Your task to perform on an android device: turn off priority inbox in the gmail app Image 0: 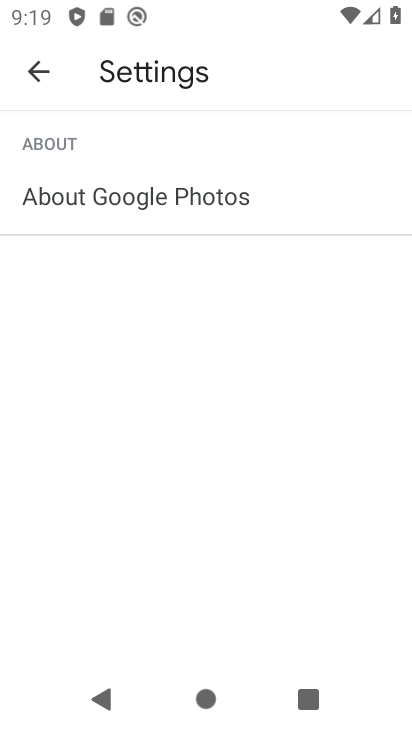
Step 0: press home button
Your task to perform on an android device: turn off priority inbox in the gmail app Image 1: 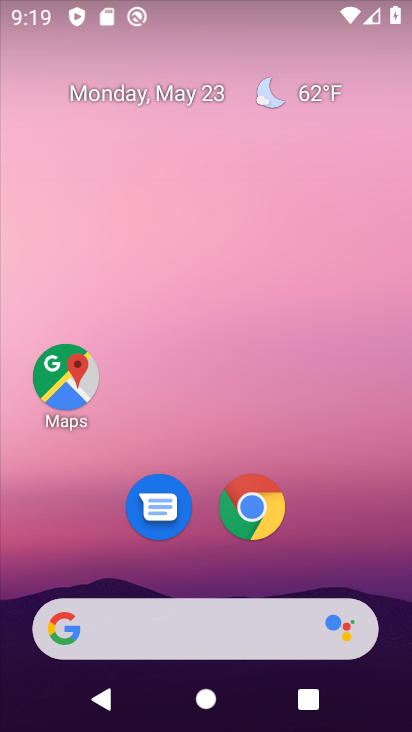
Step 1: drag from (330, 531) to (245, 0)
Your task to perform on an android device: turn off priority inbox in the gmail app Image 2: 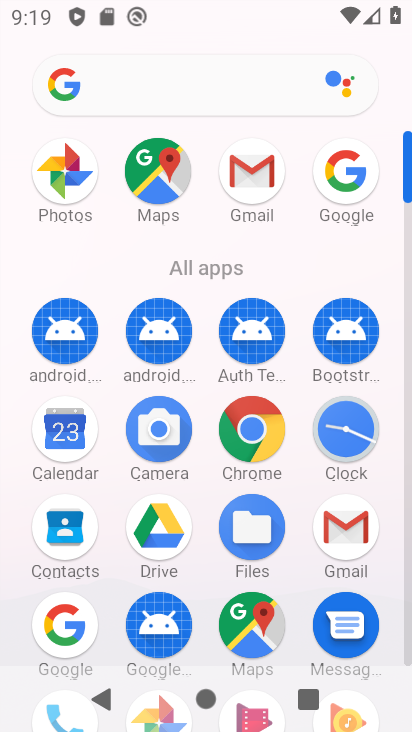
Step 2: click (249, 173)
Your task to perform on an android device: turn off priority inbox in the gmail app Image 3: 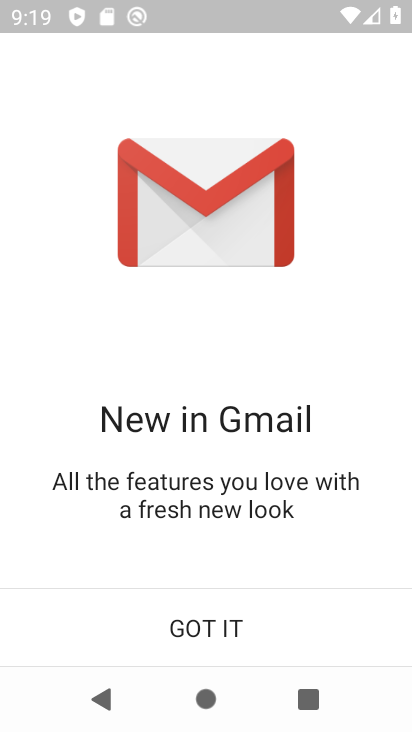
Step 3: click (201, 625)
Your task to perform on an android device: turn off priority inbox in the gmail app Image 4: 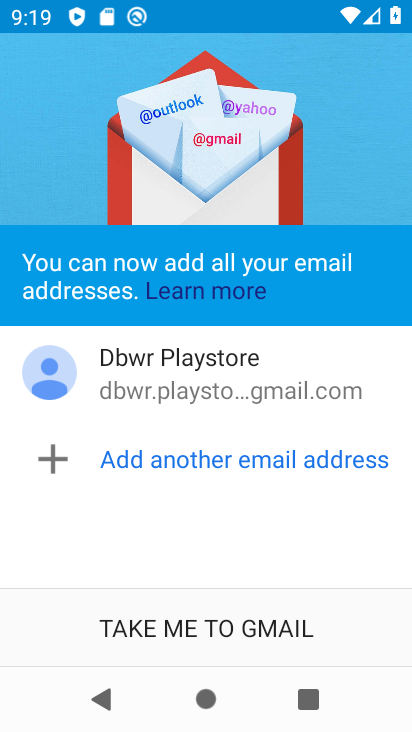
Step 4: click (201, 625)
Your task to perform on an android device: turn off priority inbox in the gmail app Image 5: 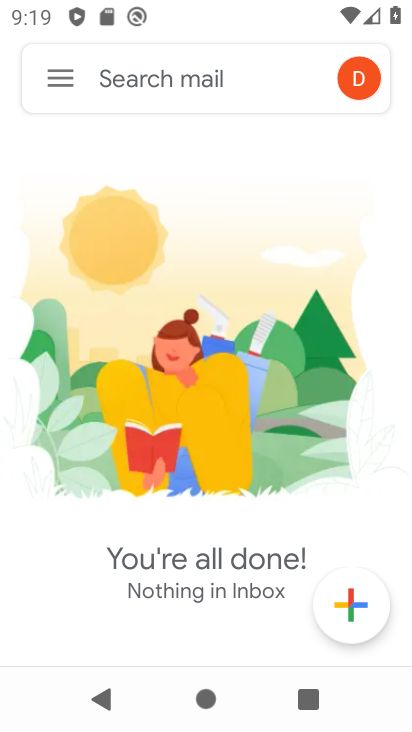
Step 5: click (57, 79)
Your task to perform on an android device: turn off priority inbox in the gmail app Image 6: 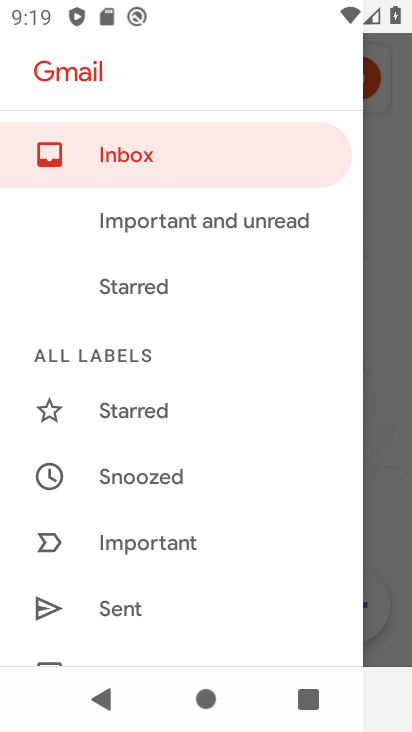
Step 6: drag from (126, 501) to (171, 409)
Your task to perform on an android device: turn off priority inbox in the gmail app Image 7: 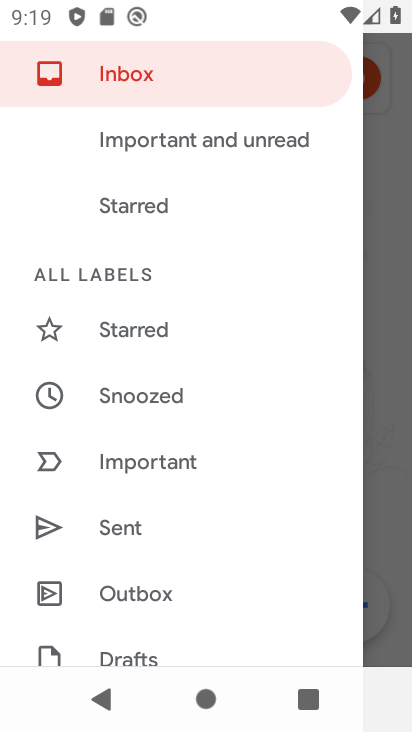
Step 7: drag from (117, 498) to (171, 418)
Your task to perform on an android device: turn off priority inbox in the gmail app Image 8: 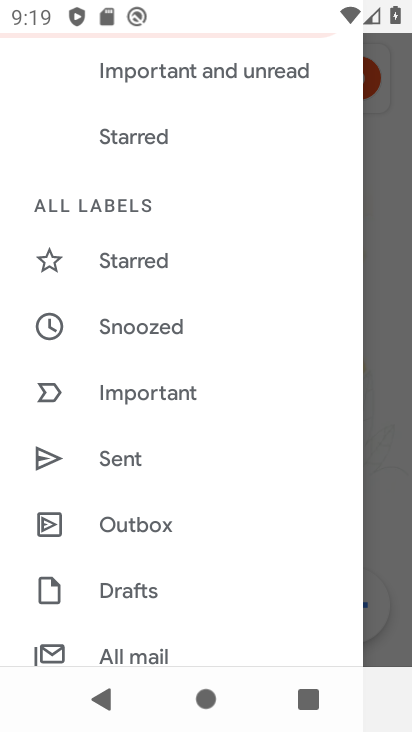
Step 8: drag from (117, 492) to (177, 414)
Your task to perform on an android device: turn off priority inbox in the gmail app Image 9: 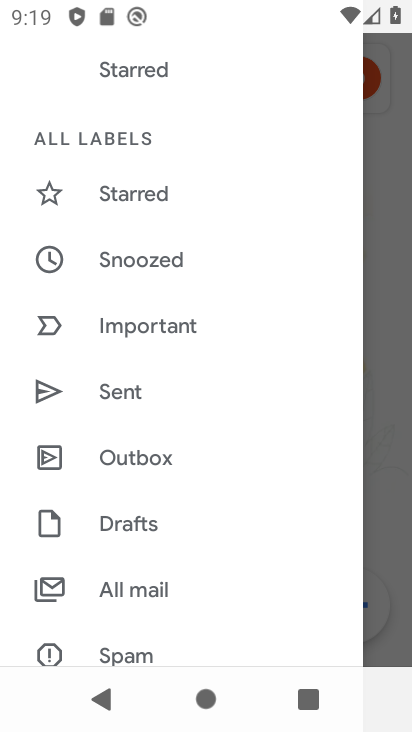
Step 9: drag from (113, 550) to (193, 453)
Your task to perform on an android device: turn off priority inbox in the gmail app Image 10: 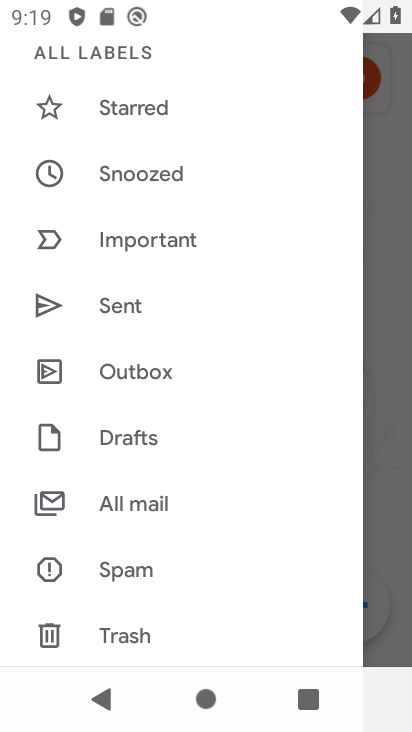
Step 10: drag from (111, 544) to (185, 445)
Your task to perform on an android device: turn off priority inbox in the gmail app Image 11: 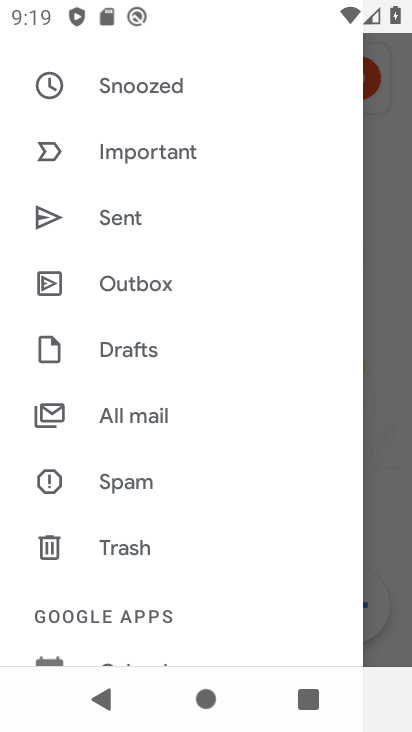
Step 11: drag from (125, 509) to (150, 390)
Your task to perform on an android device: turn off priority inbox in the gmail app Image 12: 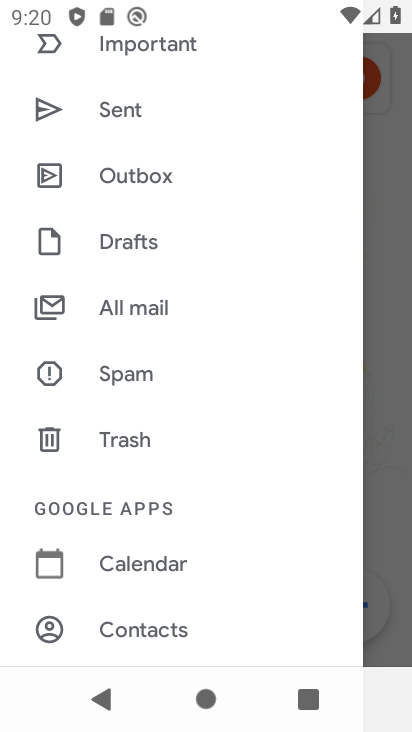
Step 12: drag from (121, 523) to (146, 432)
Your task to perform on an android device: turn off priority inbox in the gmail app Image 13: 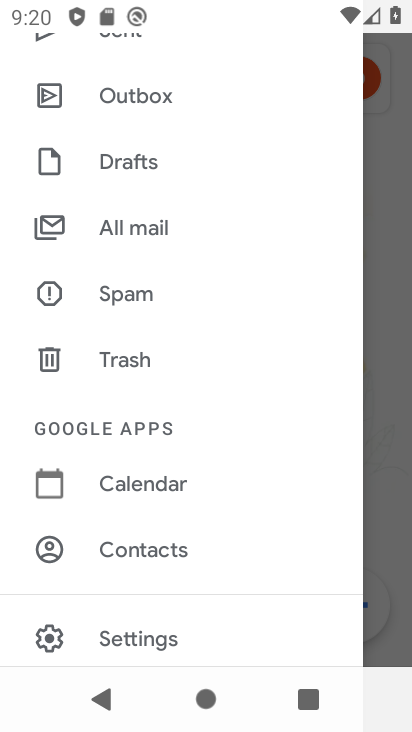
Step 13: drag from (122, 524) to (162, 408)
Your task to perform on an android device: turn off priority inbox in the gmail app Image 14: 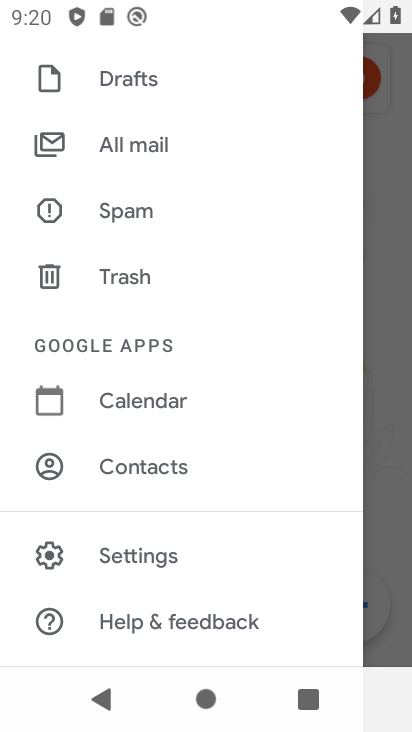
Step 14: click (136, 549)
Your task to perform on an android device: turn off priority inbox in the gmail app Image 15: 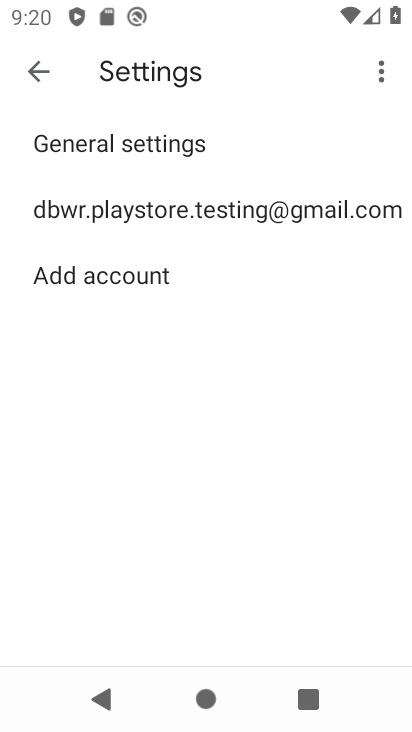
Step 15: click (181, 210)
Your task to perform on an android device: turn off priority inbox in the gmail app Image 16: 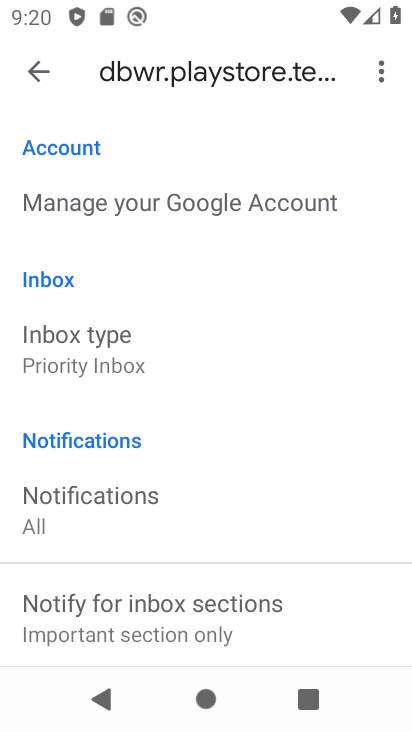
Step 16: click (75, 366)
Your task to perform on an android device: turn off priority inbox in the gmail app Image 17: 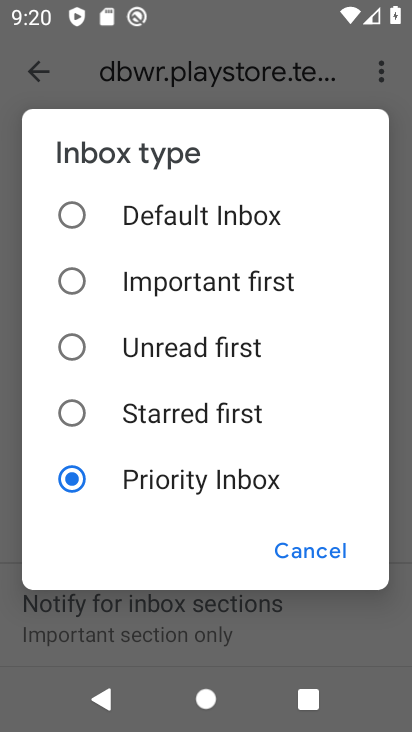
Step 17: click (67, 219)
Your task to perform on an android device: turn off priority inbox in the gmail app Image 18: 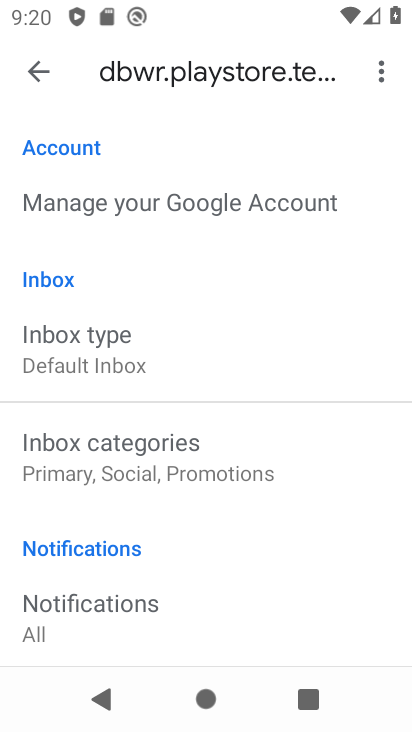
Step 18: task complete